Your task to perform on an android device: Is it going to rain tomorrow? Image 0: 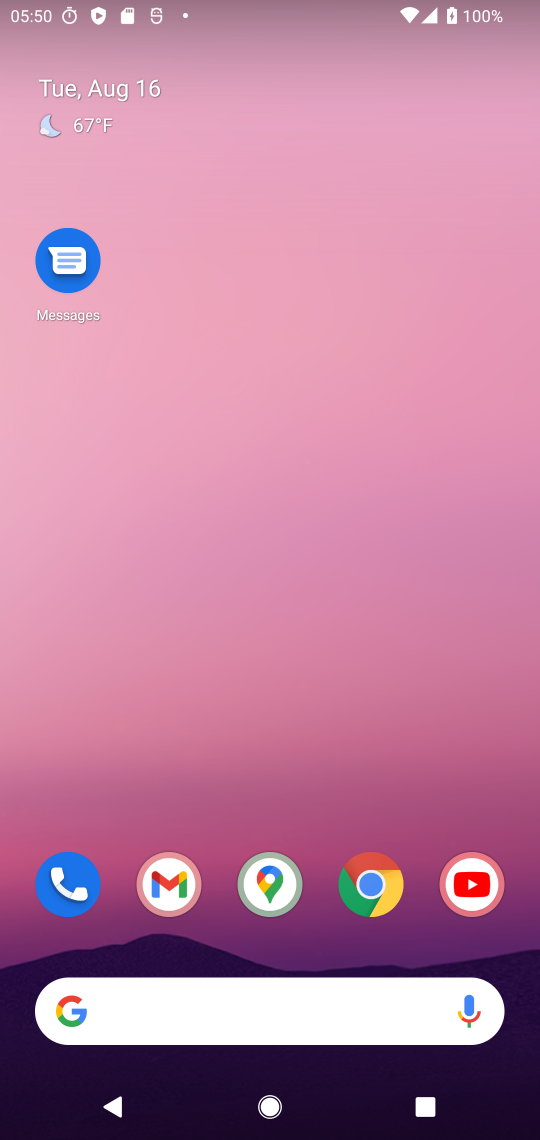
Step 0: click (131, 1006)
Your task to perform on an android device: Is it going to rain tomorrow? Image 1: 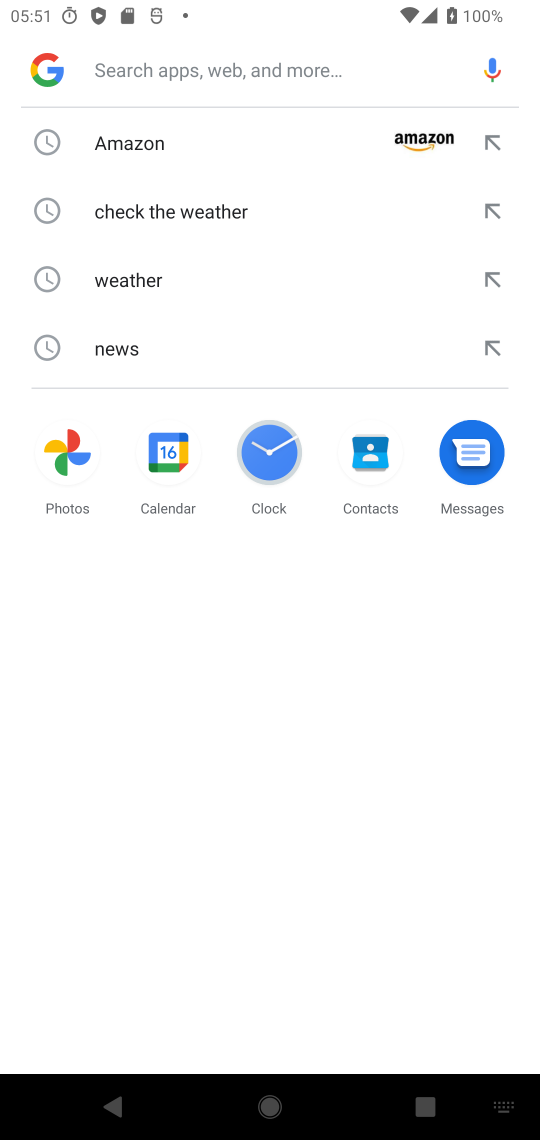
Step 1: type "Is it going to rain tomorrow?"
Your task to perform on an android device: Is it going to rain tomorrow? Image 2: 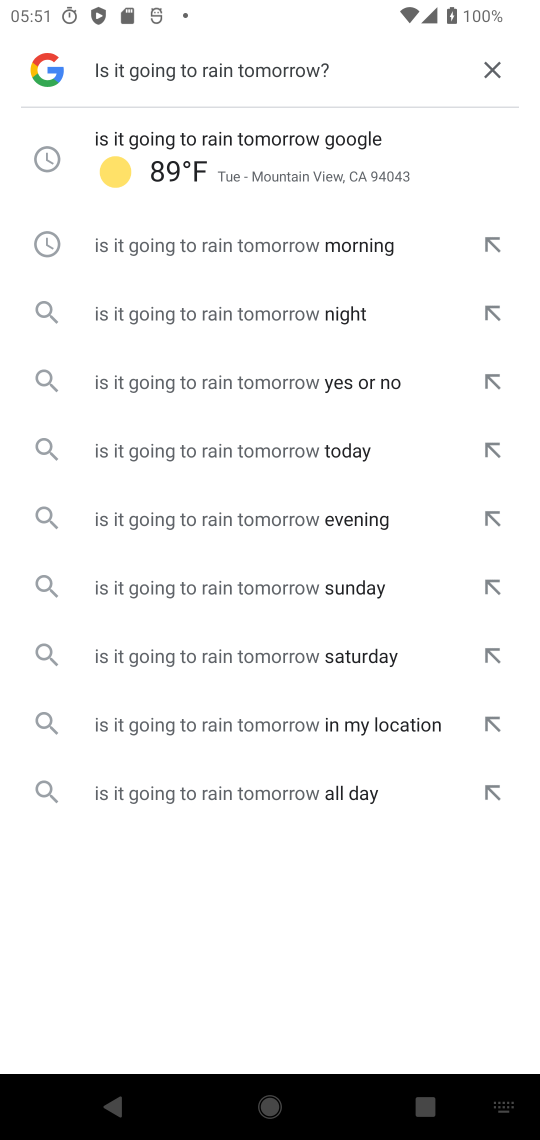
Step 2: type ""
Your task to perform on an android device: Is it going to rain tomorrow? Image 3: 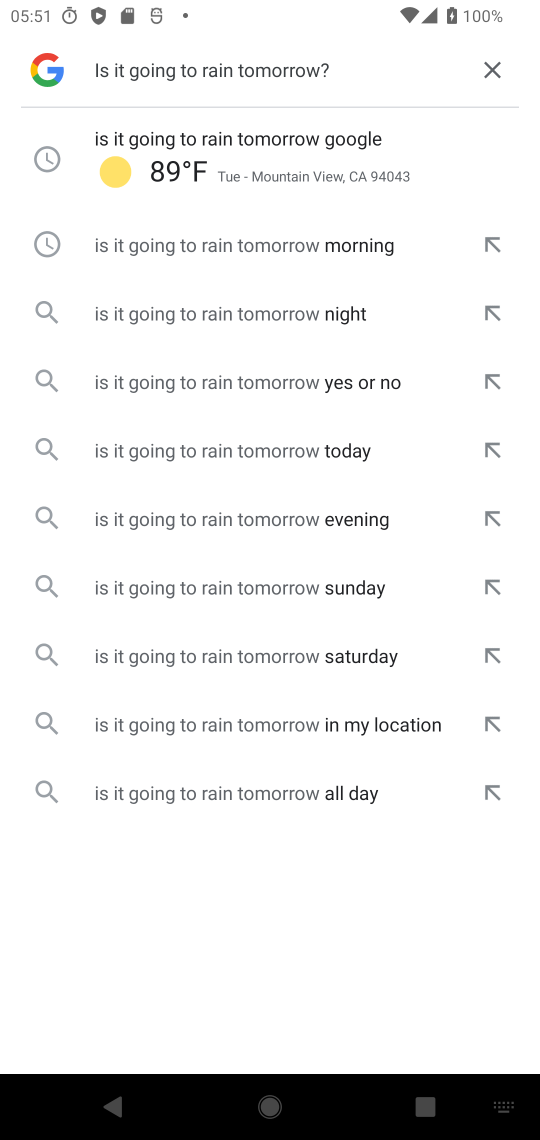
Step 3: task complete